Your task to perform on an android device: Open notification settings Image 0: 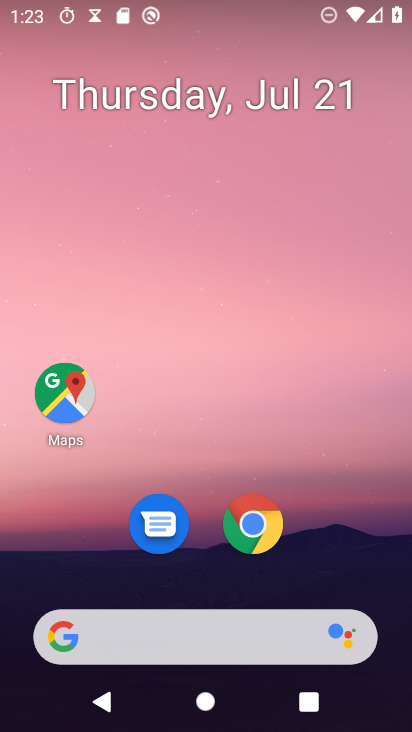
Step 0: drag from (239, 605) to (317, 210)
Your task to perform on an android device: Open notification settings Image 1: 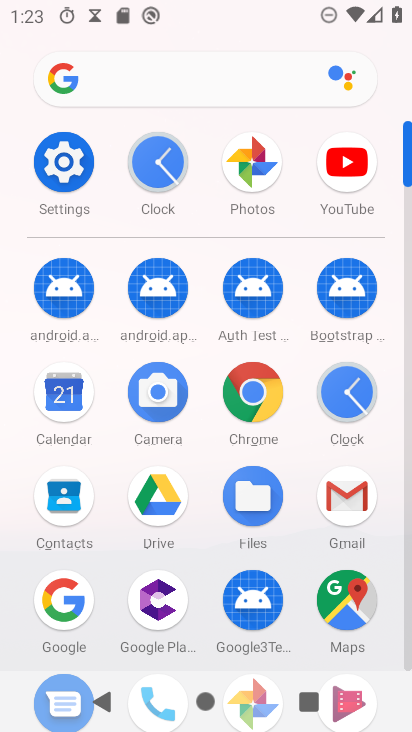
Step 1: click (61, 179)
Your task to perform on an android device: Open notification settings Image 2: 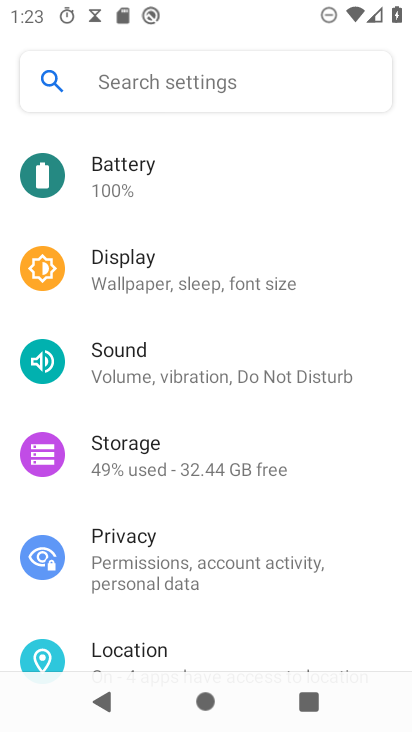
Step 2: drag from (252, 249) to (214, 568)
Your task to perform on an android device: Open notification settings Image 3: 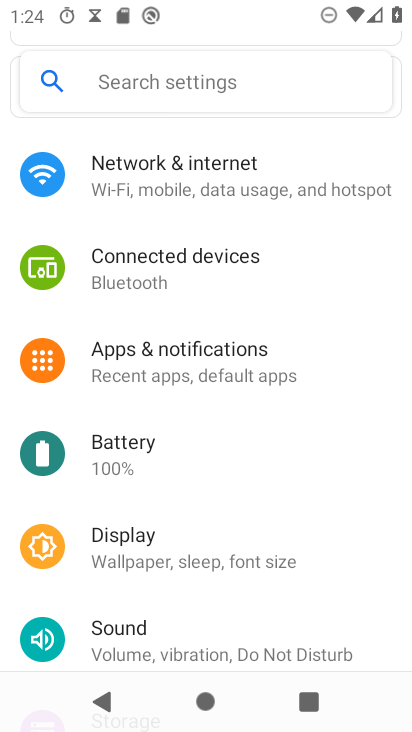
Step 3: click (161, 356)
Your task to perform on an android device: Open notification settings Image 4: 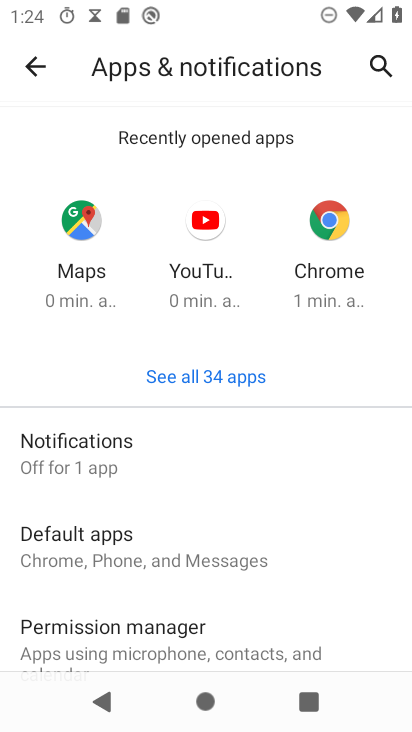
Step 4: click (101, 458)
Your task to perform on an android device: Open notification settings Image 5: 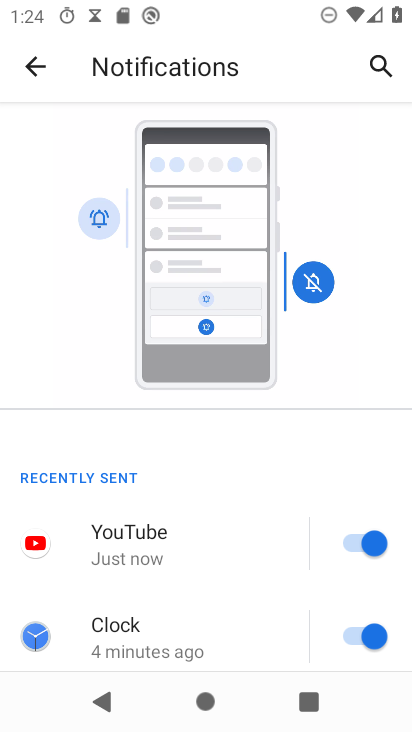
Step 5: task complete